Your task to perform on an android device: check data usage Image 0: 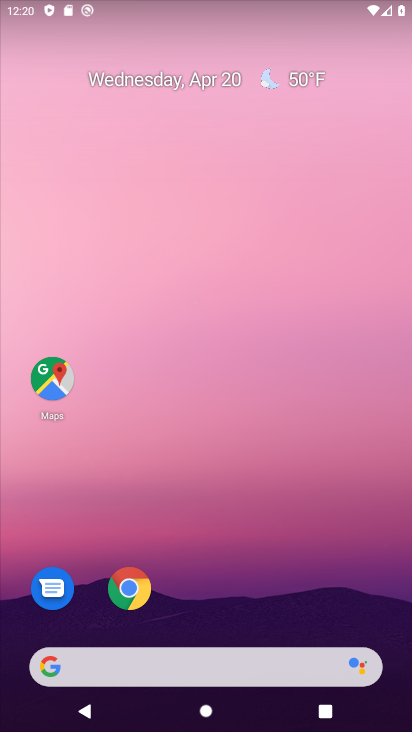
Step 0: drag from (213, 625) to (253, 60)
Your task to perform on an android device: check data usage Image 1: 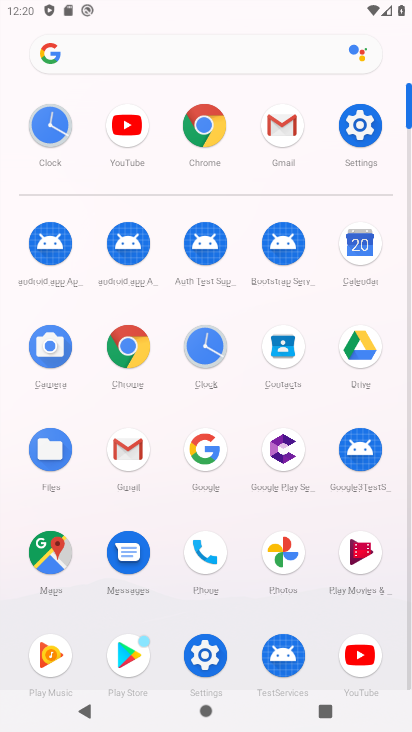
Step 1: click (358, 120)
Your task to perform on an android device: check data usage Image 2: 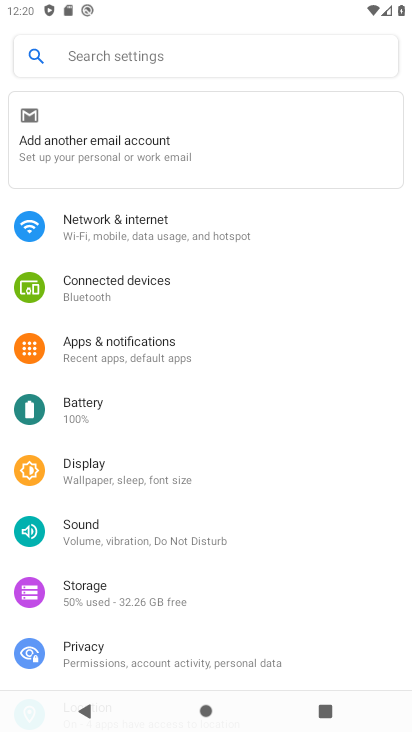
Step 2: click (165, 232)
Your task to perform on an android device: check data usage Image 3: 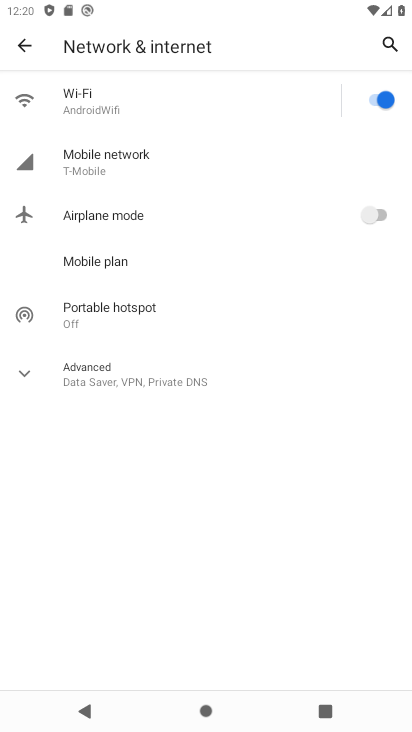
Step 3: click (125, 161)
Your task to perform on an android device: check data usage Image 4: 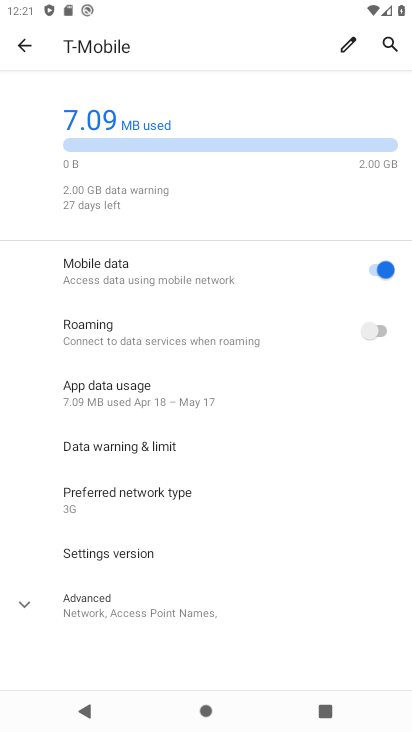
Step 4: click (131, 391)
Your task to perform on an android device: check data usage Image 5: 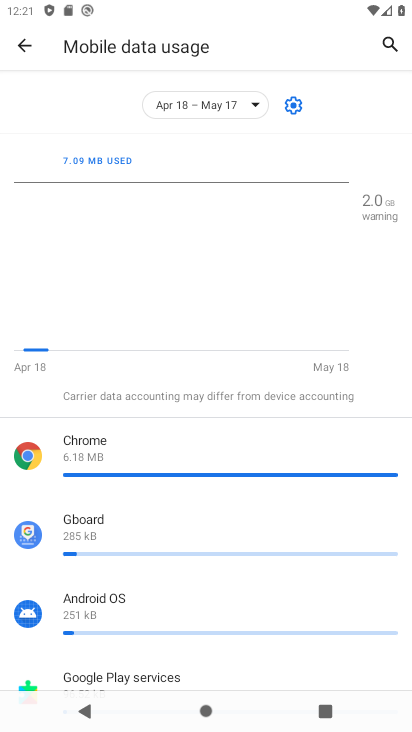
Step 5: task complete